Your task to perform on an android device: see tabs open on other devices in the chrome app Image 0: 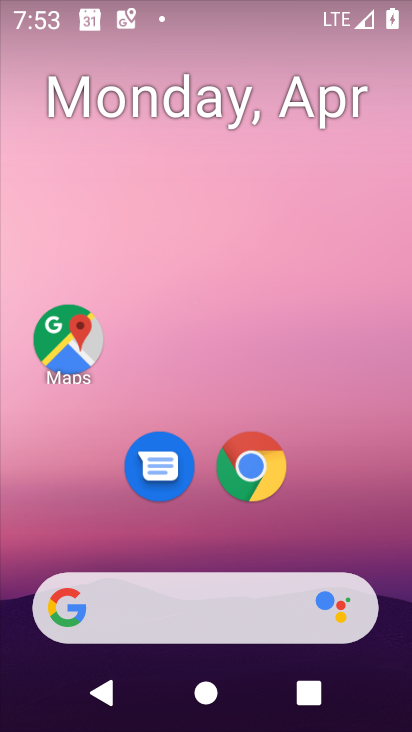
Step 0: drag from (220, 569) to (314, 130)
Your task to perform on an android device: see tabs open on other devices in the chrome app Image 1: 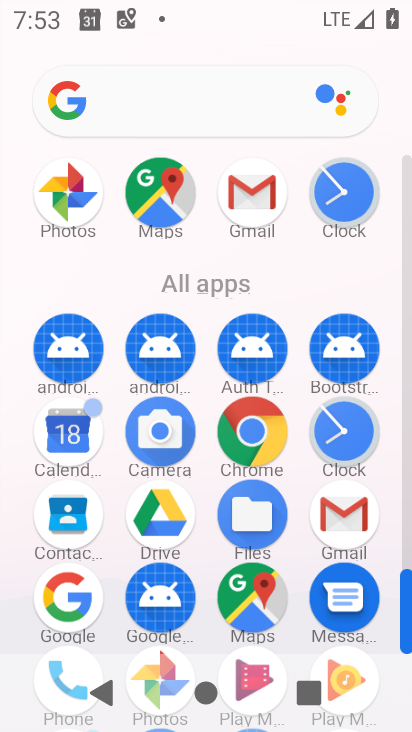
Step 1: click (253, 423)
Your task to perform on an android device: see tabs open on other devices in the chrome app Image 2: 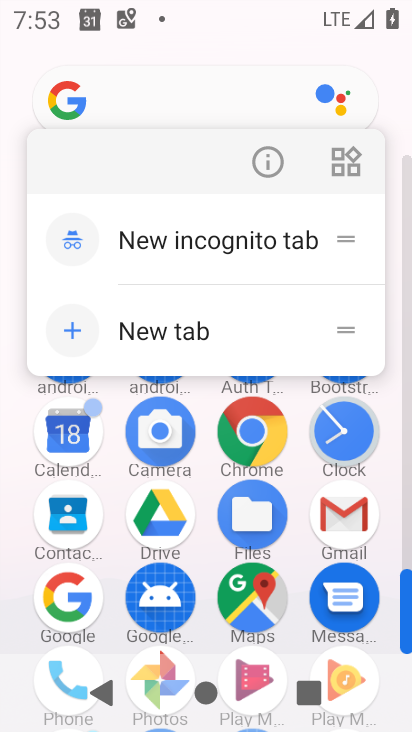
Step 2: click (269, 162)
Your task to perform on an android device: see tabs open on other devices in the chrome app Image 3: 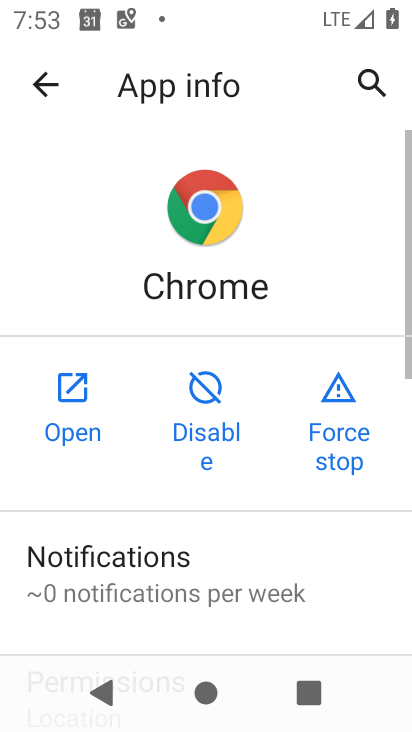
Step 3: click (87, 419)
Your task to perform on an android device: see tabs open on other devices in the chrome app Image 4: 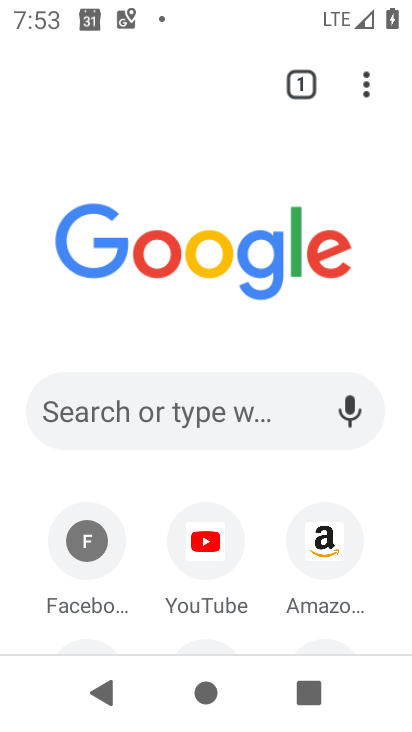
Step 4: click (357, 87)
Your task to perform on an android device: see tabs open on other devices in the chrome app Image 5: 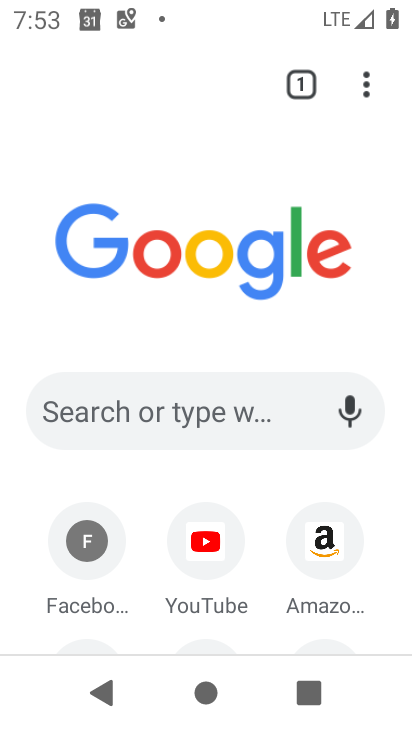
Step 5: task complete